Your task to perform on an android device: Open Yahoo.com Image 0: 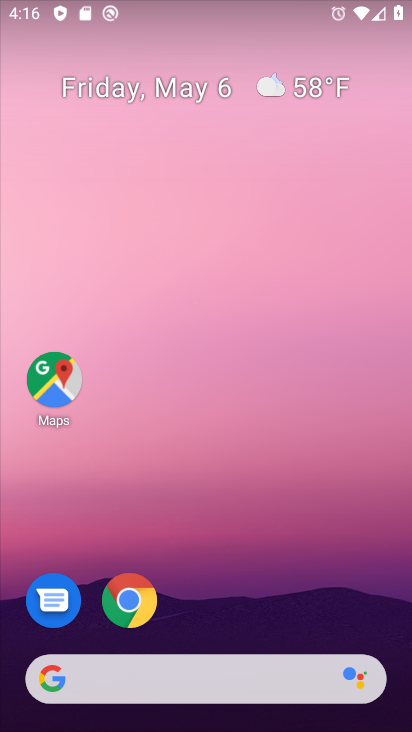
Step 0: click (145, 599)
Your task to perform on an android device: Open Yahoo.com Image 1: 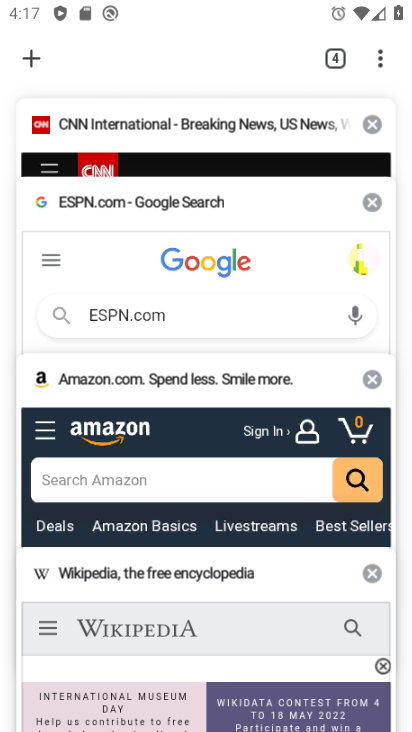
Step 1: click (36, 56)
Your task to perform on an android device: Open Yahoo.com Image 2: 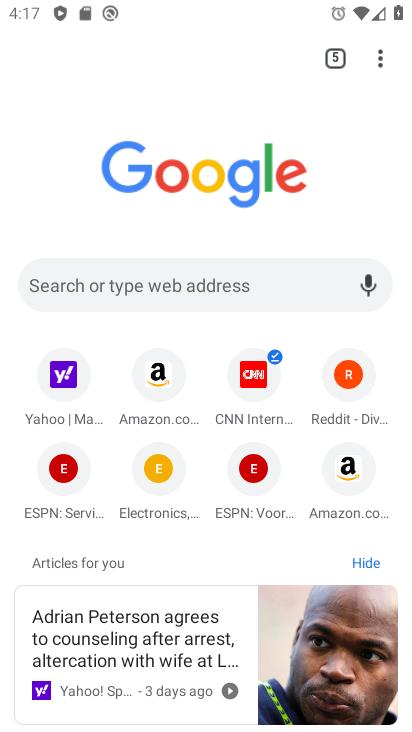
Step 2: click (68, 378)
Your task to perform on an android device: Open Yahoo.com Image 3: 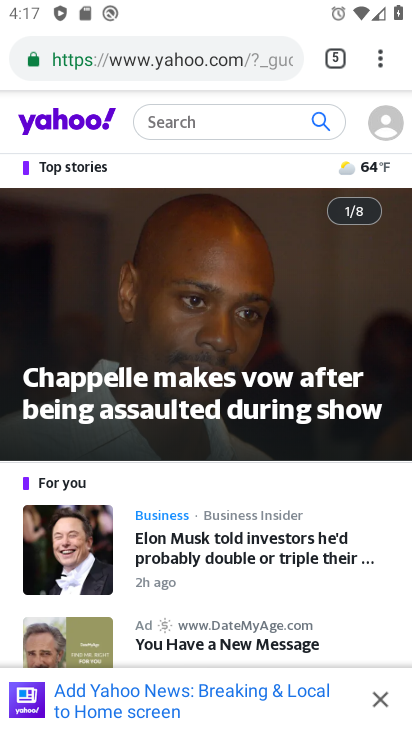
Step 3: task complete